Your task to perform on an android device: check storage Image 0: 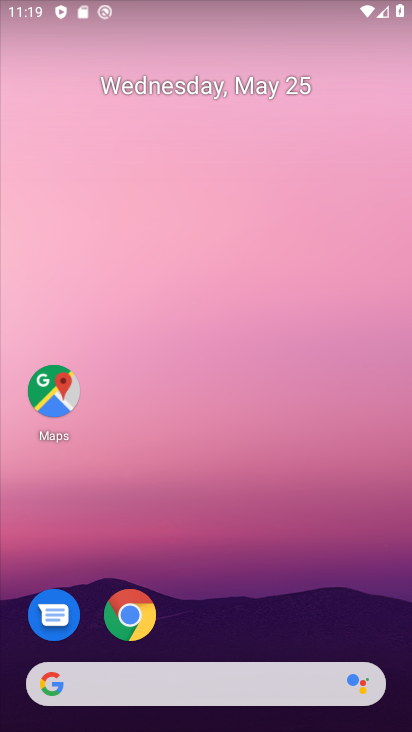
Step 0: click (161, 83)
Your task to perform on an android device: check storage Image 1: 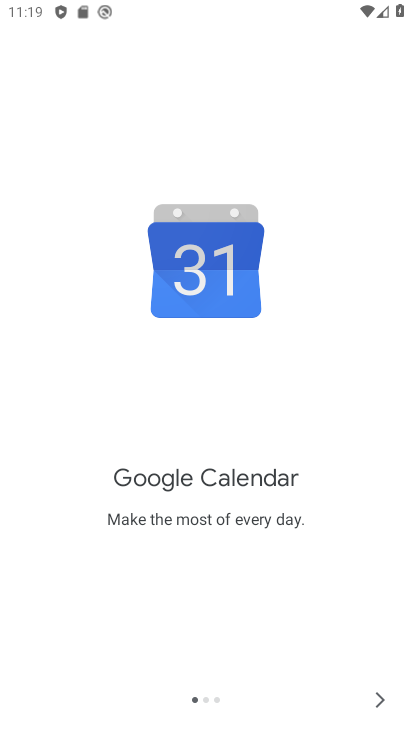
Step 1: press home button
Your task to perform on an android device: check storage Image 2: 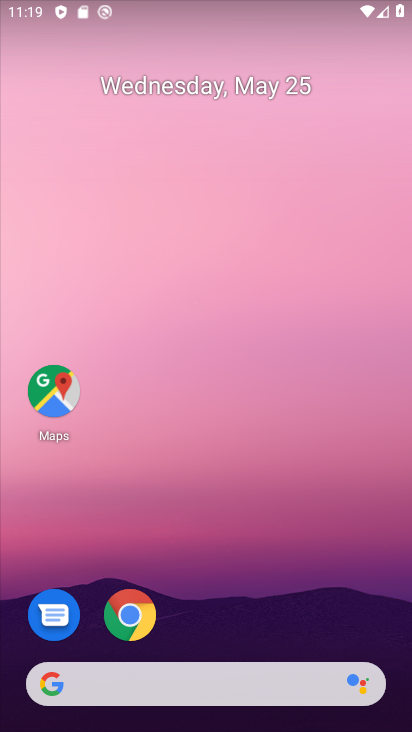
Step 2: drag from (206, 650) to (141, 216)
Your task to perform on an android device: check storage Image 3: 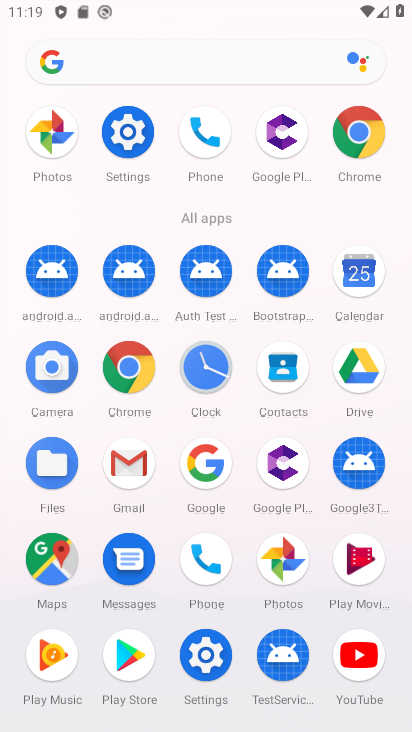
Step 3: click (128, 133)
Your task to perform on an android device: check storage Image 4: 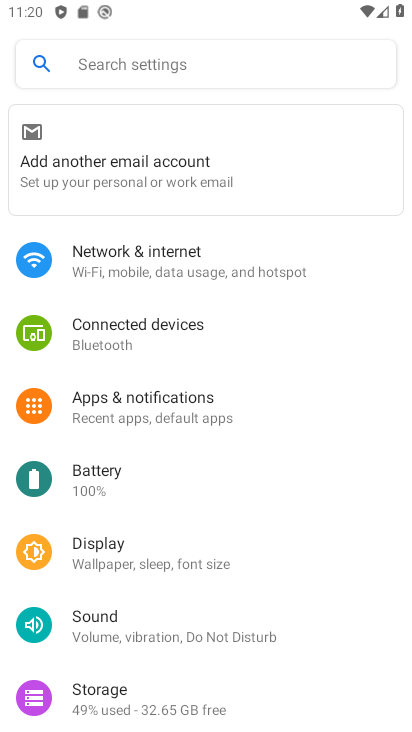
Step 4: click (89, 667)
Your task to perform on an android device: check storage Image 5: 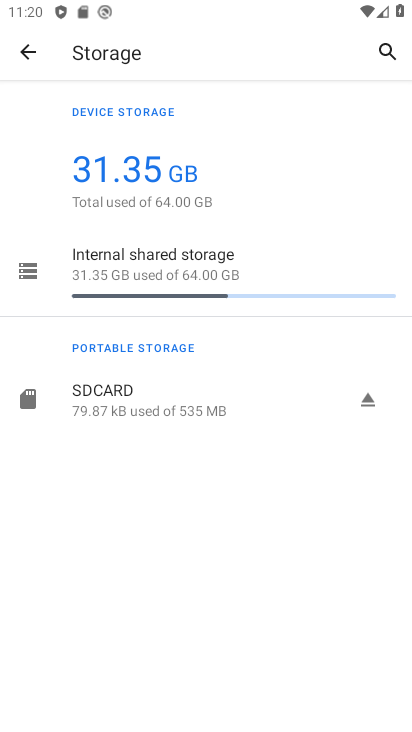
Step 5: task complete